Your task to perform on an android device: turn notification dots on Image 0: 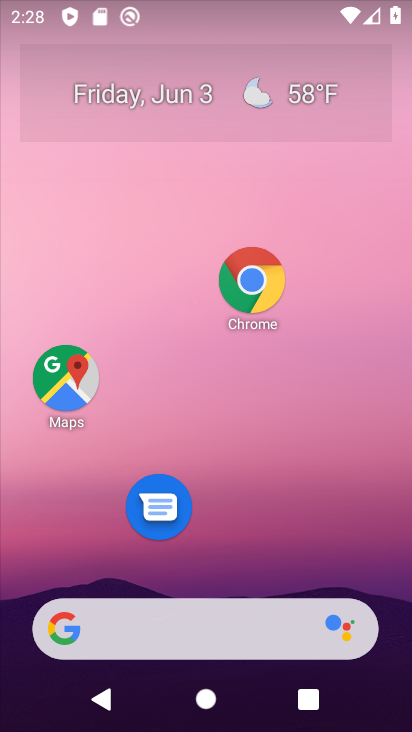
Step 0: drag from (235, 556) to (256, 78)
Your task to perform on an android device: turn notification dots on Image 1: 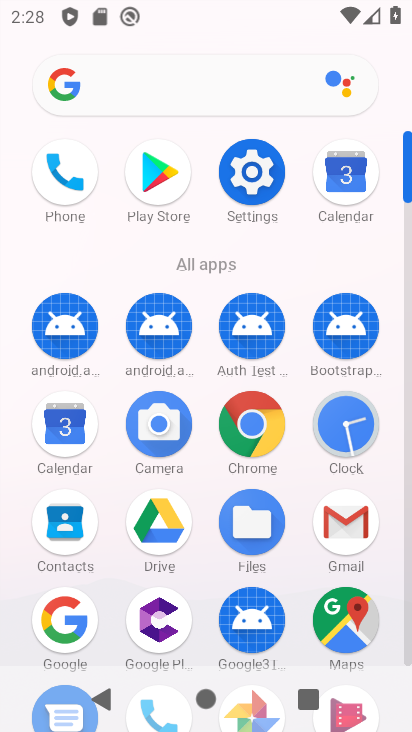
Step 1: click (245, 163)
Your task to perform on an android device: turn notification dots on Image 2: 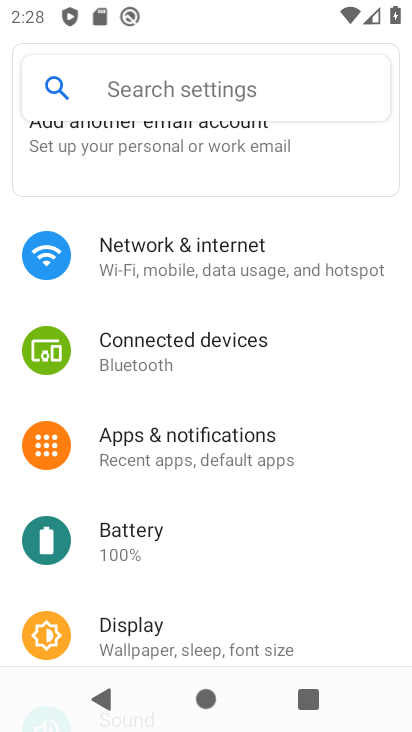
Step 2: click (160, 443)
Your task to perform on an android device: turn notification dots on Image 3: 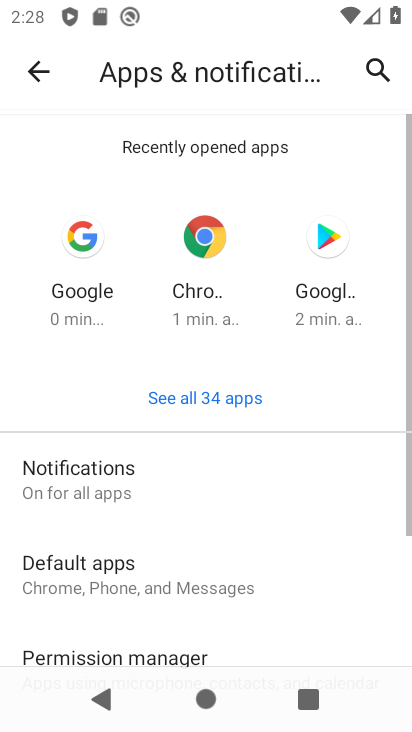
Step 3: click (137, 483)
Your task to perform on an android device: turn notification dots on Image 4: 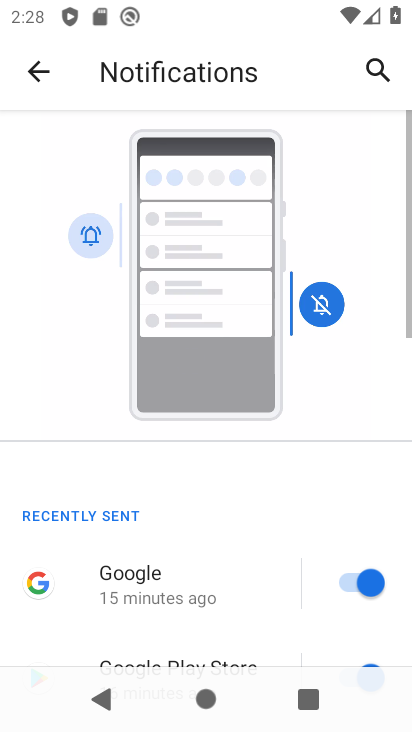
Step 4: drag from (244, 451) to (237, 7)
Your task to perform on an android device: turn notification dots on Image 5: 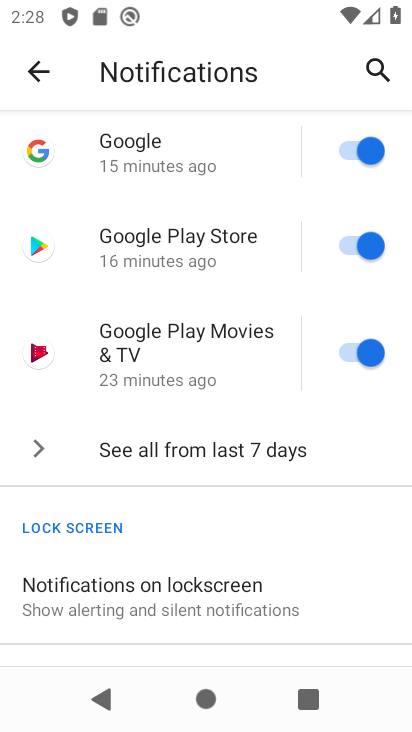
Step 5: drag from (184, 606) to (216, 114)
Your task to perform on an android device: turn notification dots on Image 6: 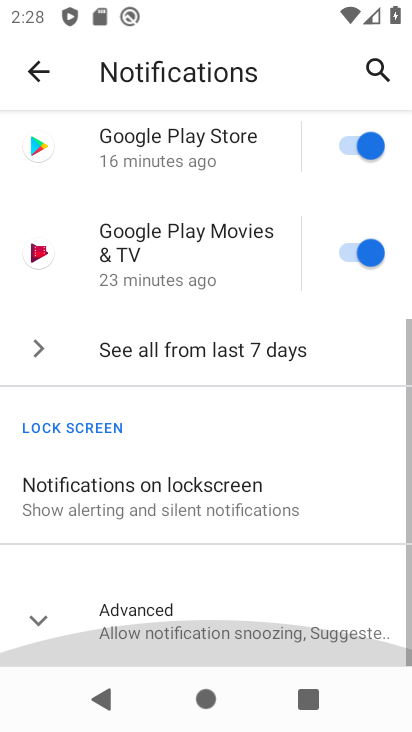
Step 6: click (178, 614)
Your task to perform on an android device: turn notification dots on Image 7: 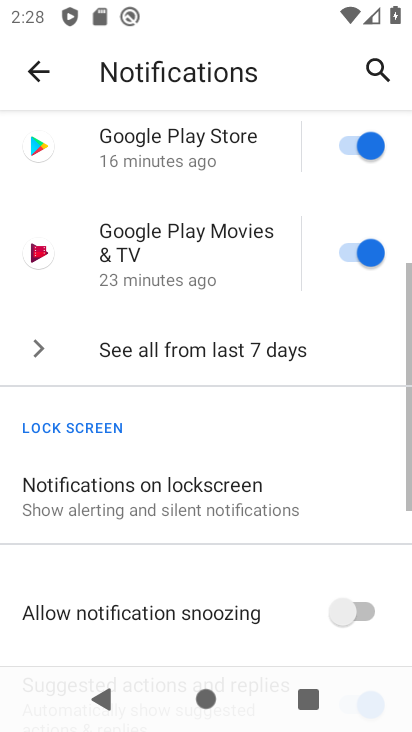
Step 7: drag from (315, 625) to (279, 152)
Your task to perform on an android device: turn notification dots on Image 8: 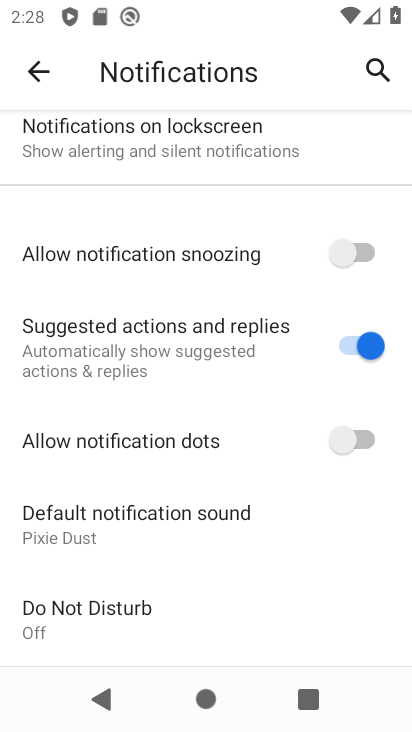
Step 8: click (354, 435)
Your task to perform on an android device: turn notification dots on Image 9: 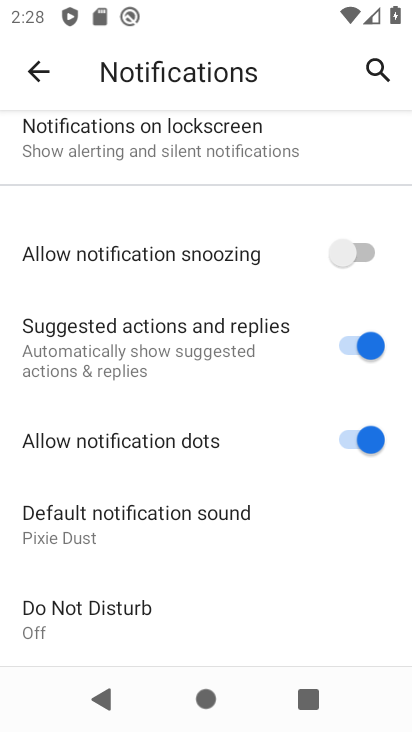
Step 9: task complete